Your task to perform on an android device: Open Google Maps Image 0: 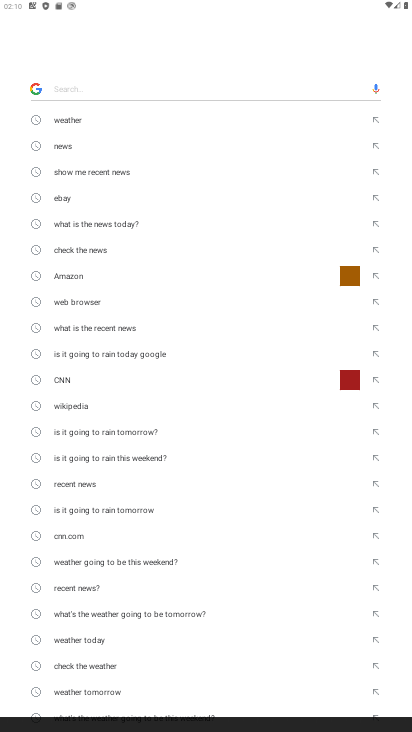
Step 0: press home button
Your task to perform on an android device: Open Google Maps Image 1: 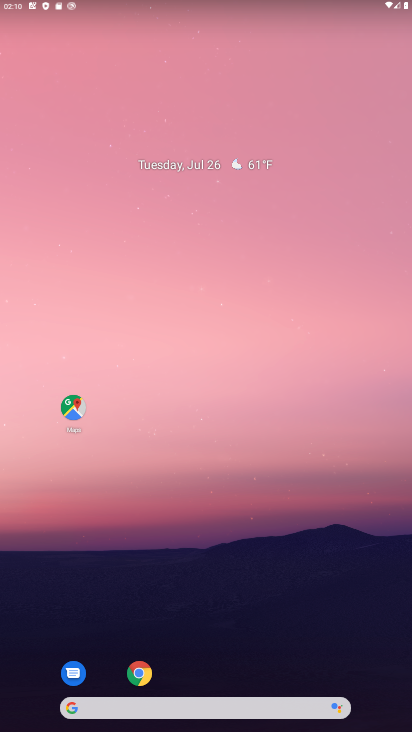
Step 1: drag from (211, 725) to (209, 284)
Your task to perform on an android device: Open Google Maps Image 2: 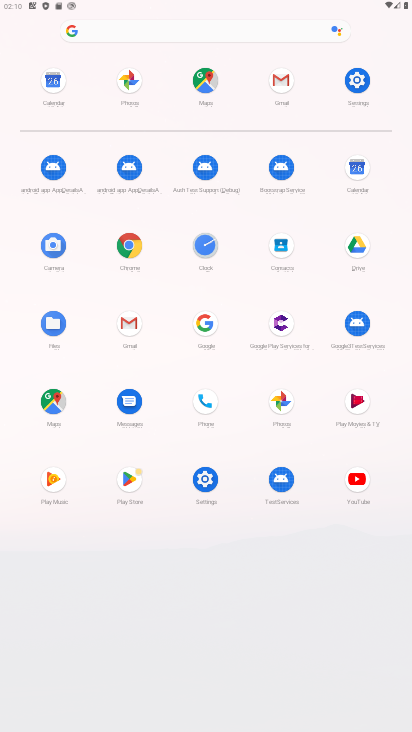
Step 2: click (52, 398)
Your task to perform on an android device: Open Google Maps Image 3: 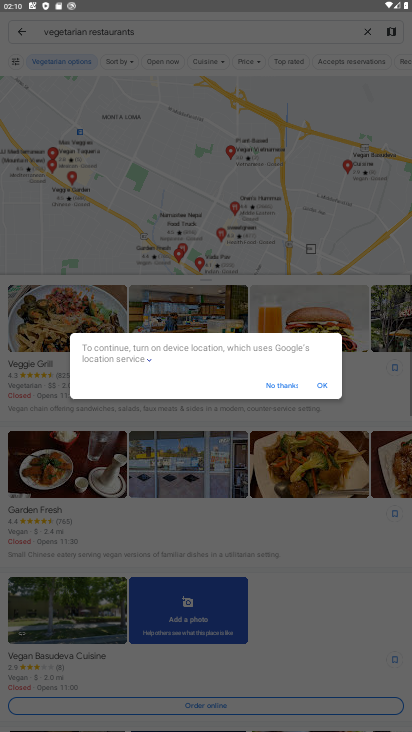
Step 3: click (319, 384)
Your task to perform on an android device: Open Google Maps Image 4: 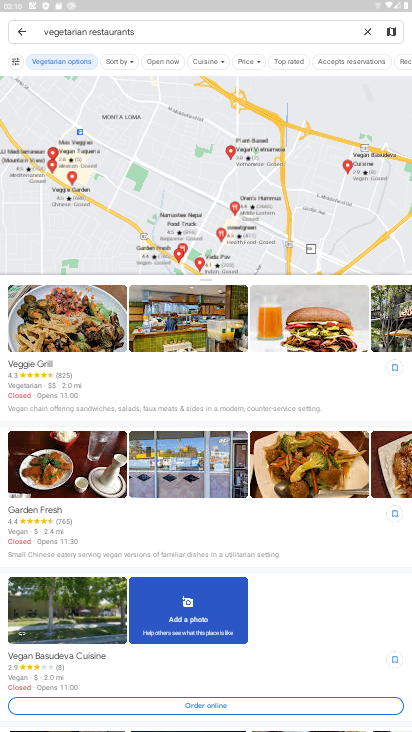
Step 4: task complete